Your task to perform on an android device: read, delete, or share a saved page in the chrome app Image 0: 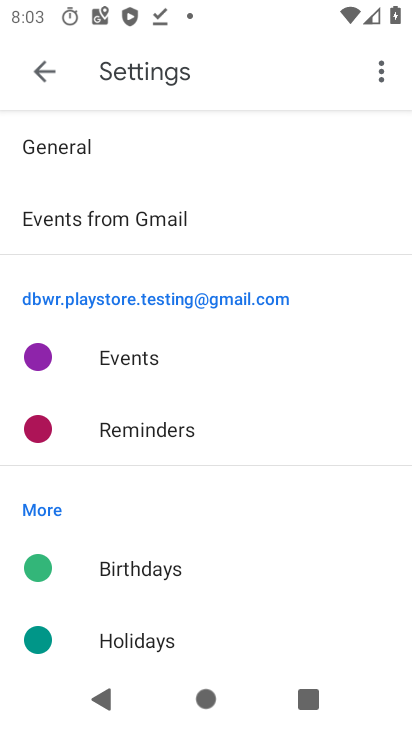
Step 0: press home button
Your task to perform on an android device: read, delete, or share a saved page in the chrome app Image 1: 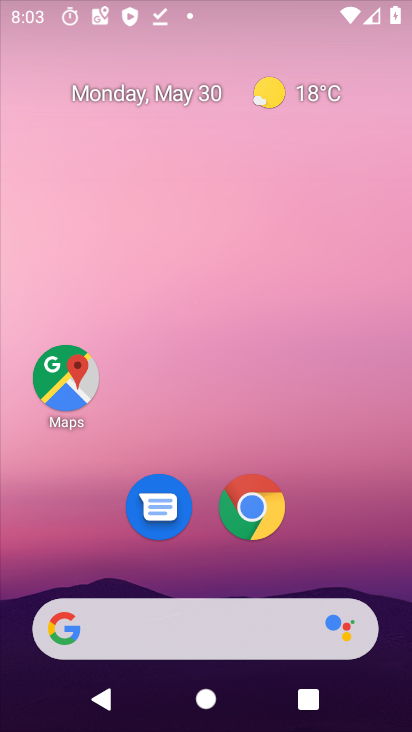
Step 1: drag from (337, 536) to (340, 67)
Your task to perform on an android device: read, delete, or share a saved page in the chrome app Image 2: 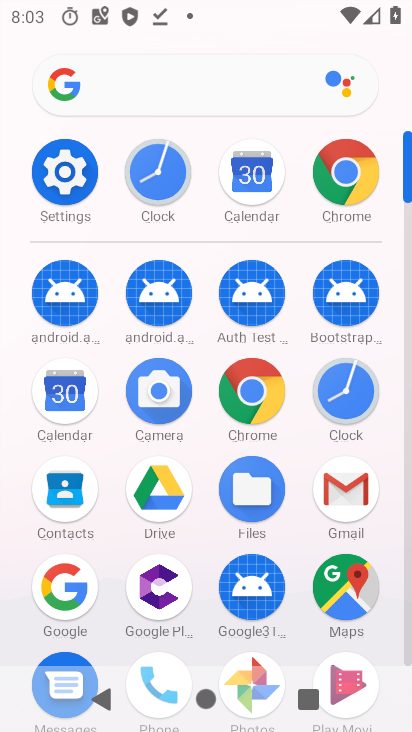
Step 2: click (319, 186)
Your task to perform on an android device: read, delete, or share a saved page in the chrome app Image 3: 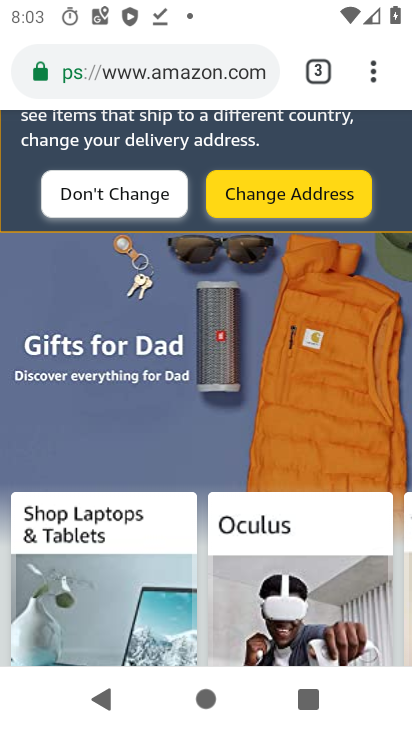
Step 3: drag from (377, 86) to (128, 279)
Your task to perform on an android device: read, delete, or share a saved page in the chrome app Image 4: 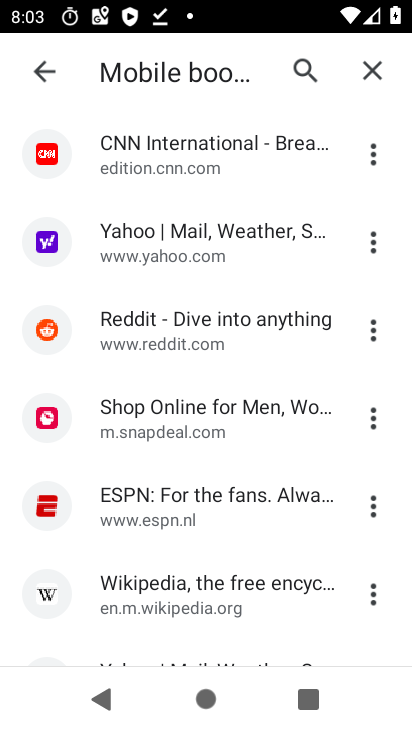
Step 4: drag from (283, 537) to (313, 225)
Your task to perform on an android device: read, delete, or share a saved page in the chrome app Image 5: 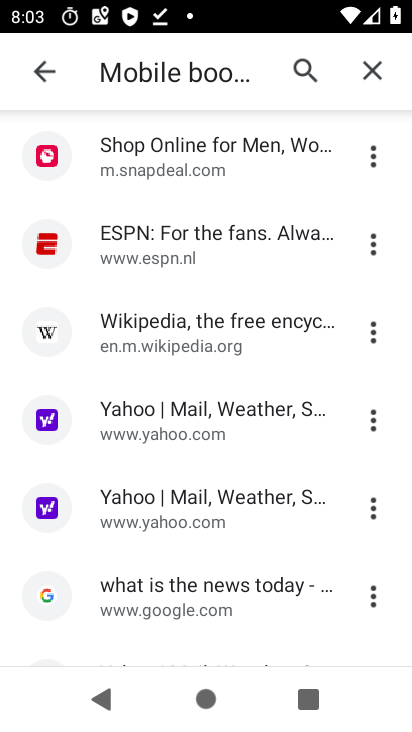
Step 5: click (374, 156)
Your task to perform on an android device: read, delete, or share a saved page in the chrome app Image 6: 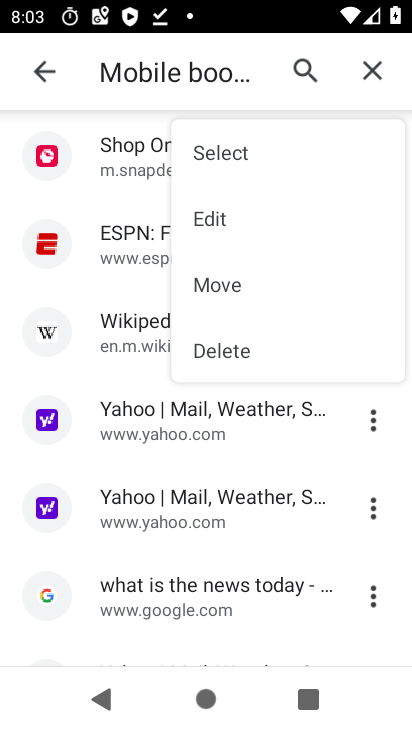
Step 6: click (218, 355)
Your task to perform on an android device: read, delete, or share a saved page in the chrome app Image 7: 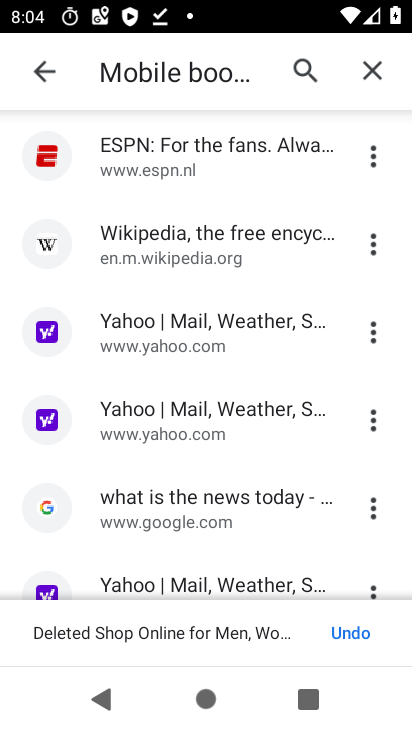
Step 7: task complete